Your task to perform on an android device: Go to calendar. Show me events next week Image 0: 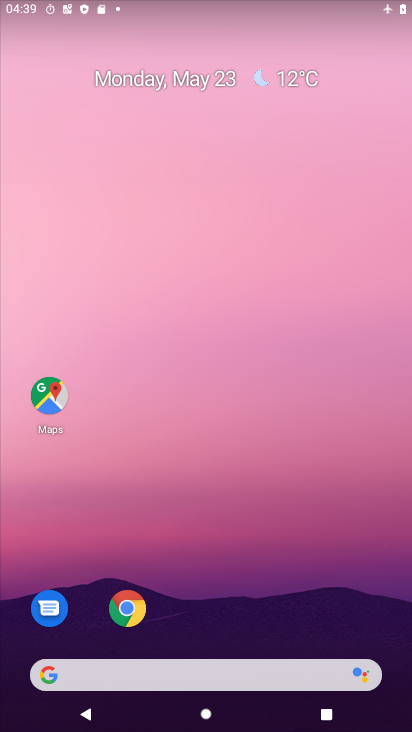
Step 0: press home button
Your task to perform on an android device: Go to calendar. Show me events next week Image 1: 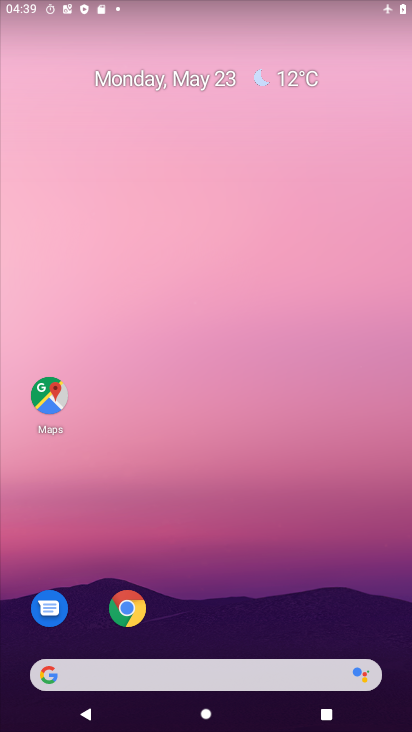
Step 1: click (175, 82)
Your task to perform on an android device: Go to calendar. Show me events next week Image 2: 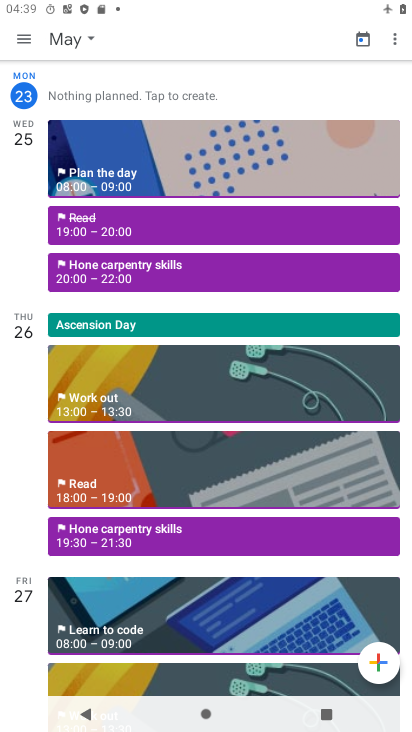
Step 2: click (17, 39)
Your task to perform on an android device: Go to calendar. Show me events next week Image 3: 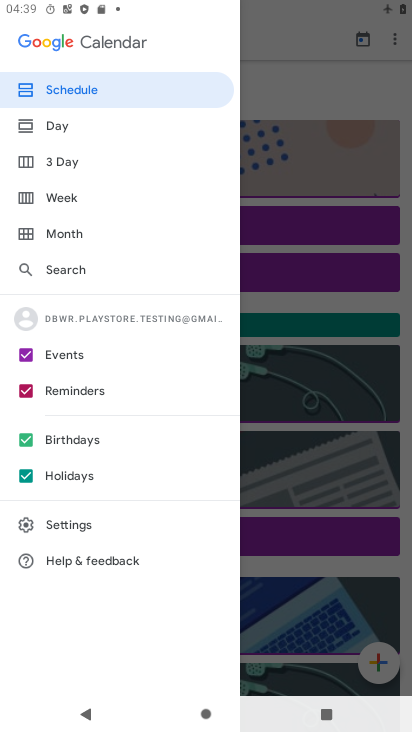
Step 3: click (71, 194)
Your task to perform on an android device: Go to calendar. Show me events next week Image 4: 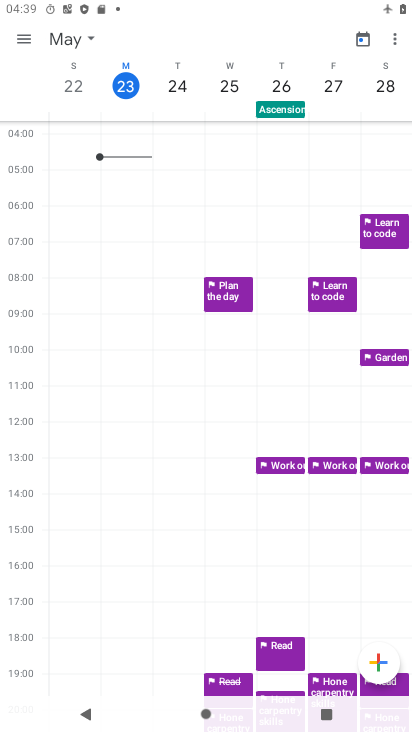
Step 4: click (85, 37)
Your task to perform on an android device: Go to calendar. Show me events next week Image 5: 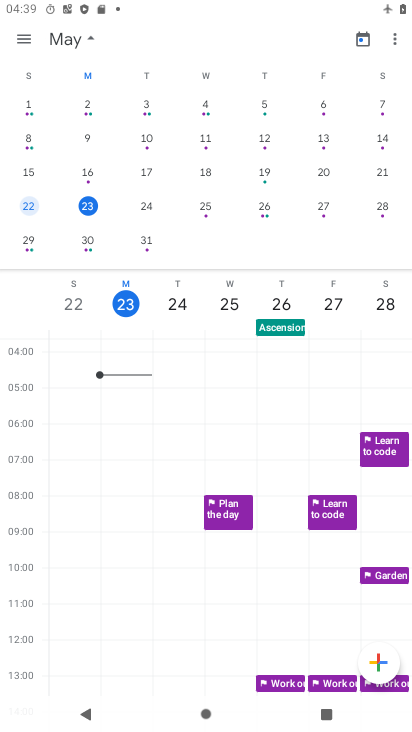
Step 5: click (29, 232)
Your task to perform on an android device: Go to calendar. Show me events next week Image 6: 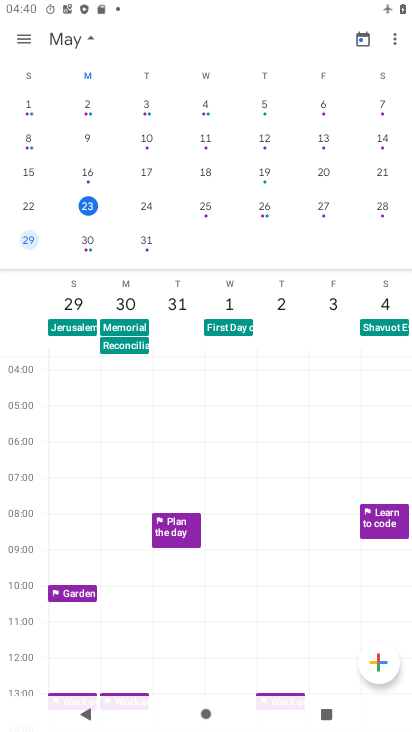
Step 6: task complete